Your task to perform on an android device: Open CNN.com Image 0: 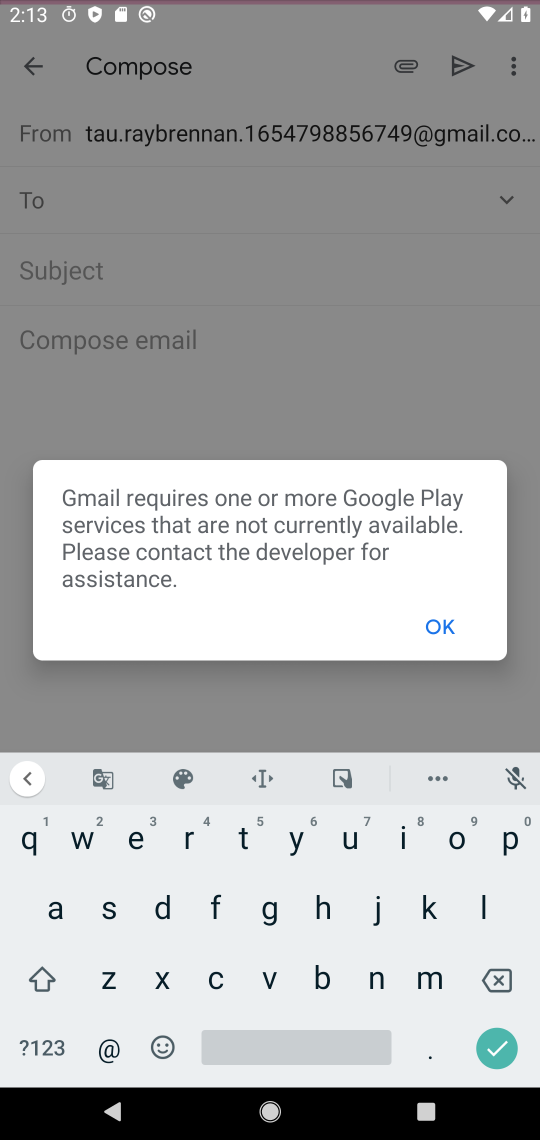
Step 0: press home button
Your task to perform on an android device: Open CNN.com Image 1: 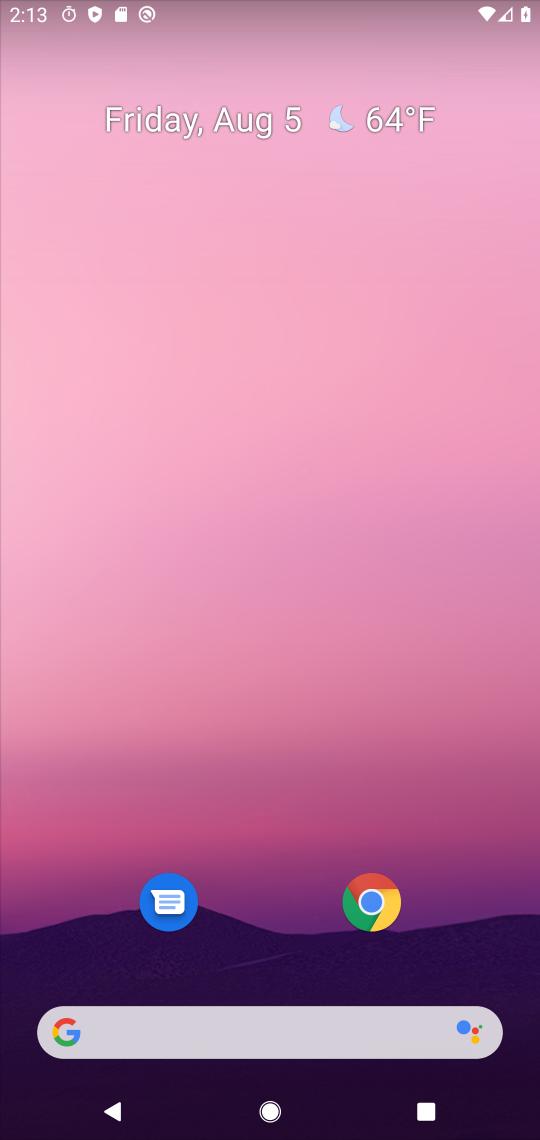
Step 1: drag from (279, 962) to (147, 177)
Your task to perform on an android device: Open CNN.com Image 2: 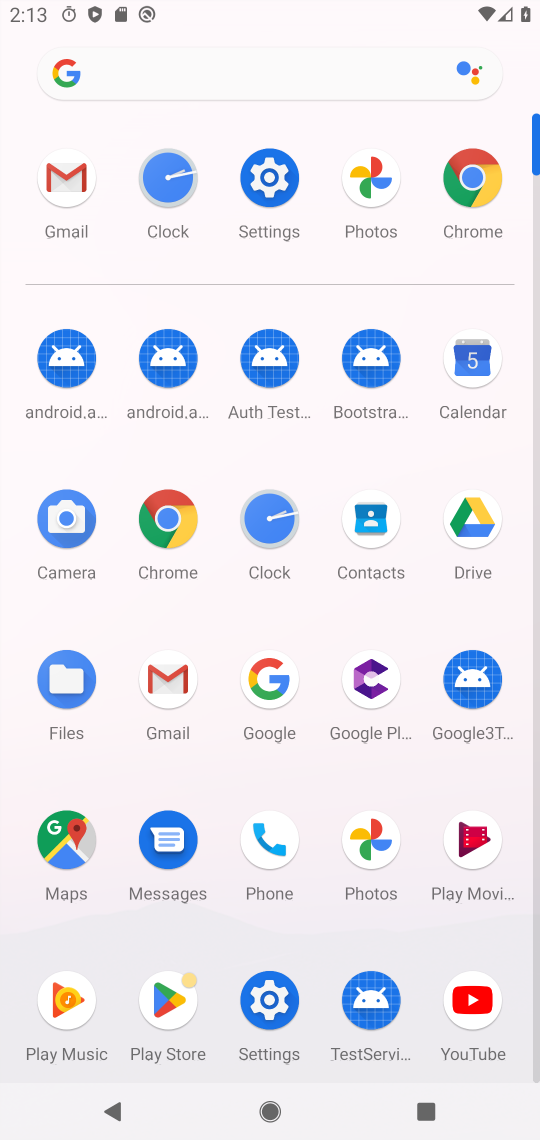
Step 2: click (468, 180)
Your task to perform on an android device: Open CNN.com Image 3: 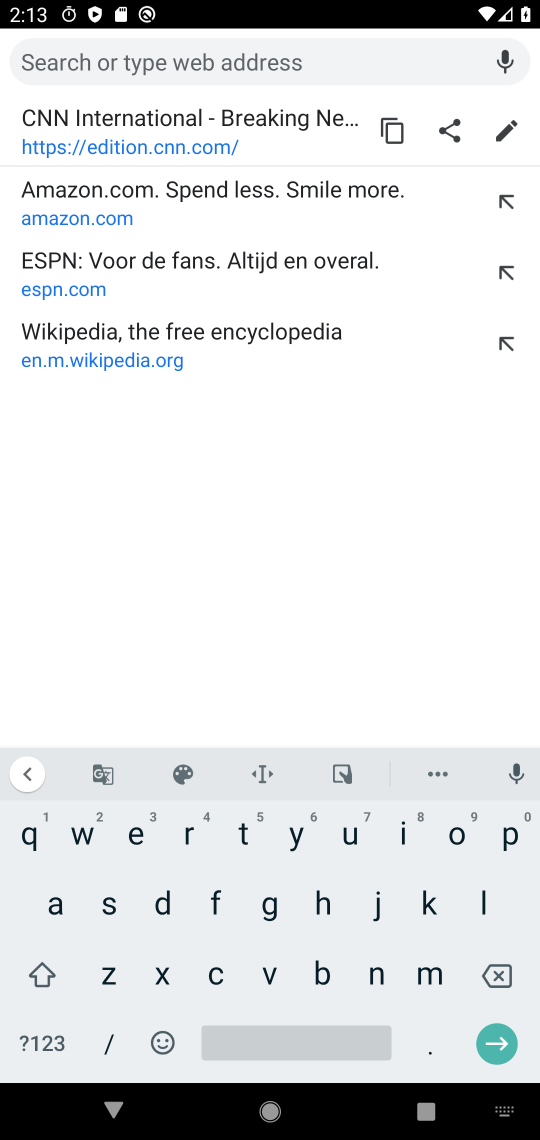
Step 3: click (96, 113)
Your task to perform on an android device: Open CNN.com Image 4: 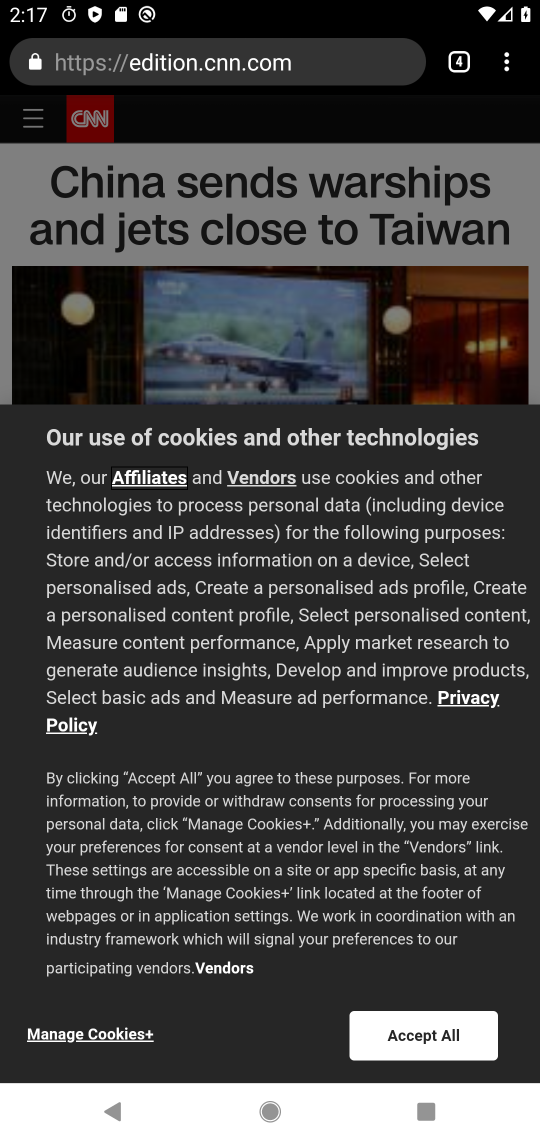
Step 4: task complete